Your task to perform on an android device: Open Yahoo.com Image 0: 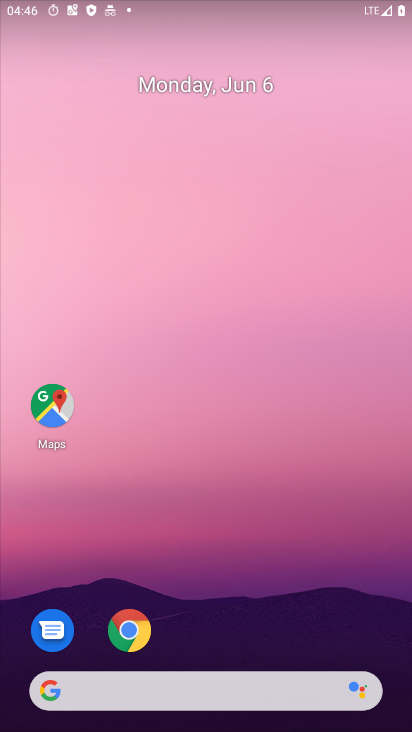
Step 0: drag from (245, 621) to (245, 80)
Your task to perform on an android device: Open Yahoo.com Image 1: 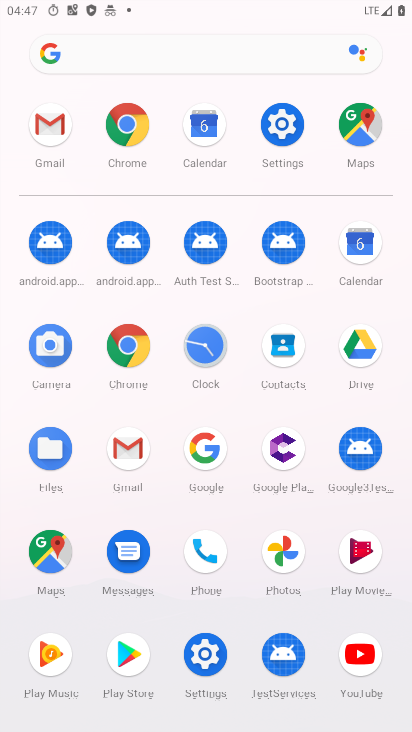
Step 1: click (124, 336)
Your task to perform on an android device: Open Yahoo.com Image 2: 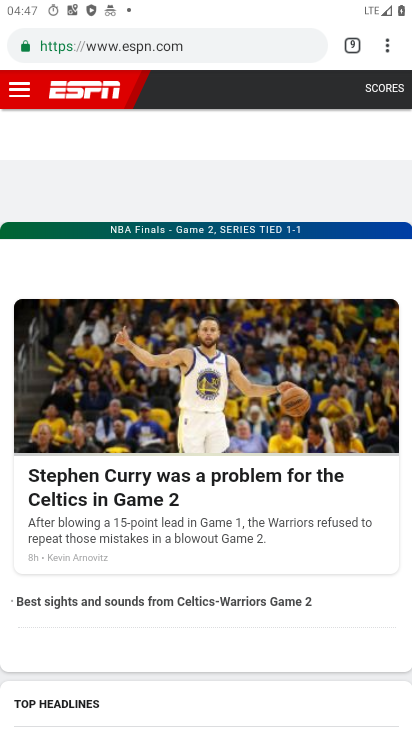
Step 2: click (174, 42)
Your task to perform on an android device: Open Yahoo.com Image 3: 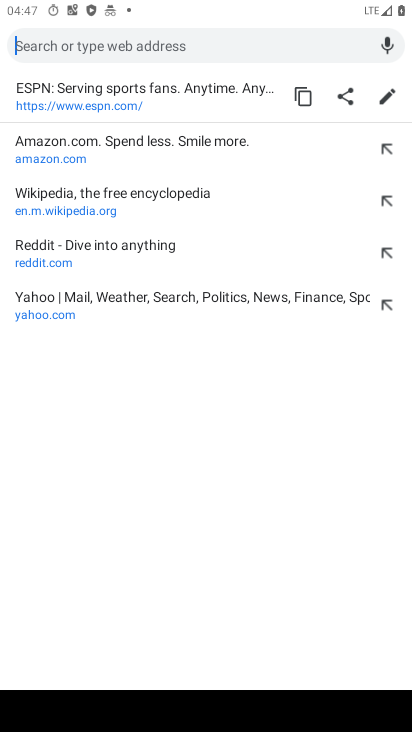
Step 3: type "Yahoo.com"
Your task to perform on an android device: Open Yahoo.com Image 4: 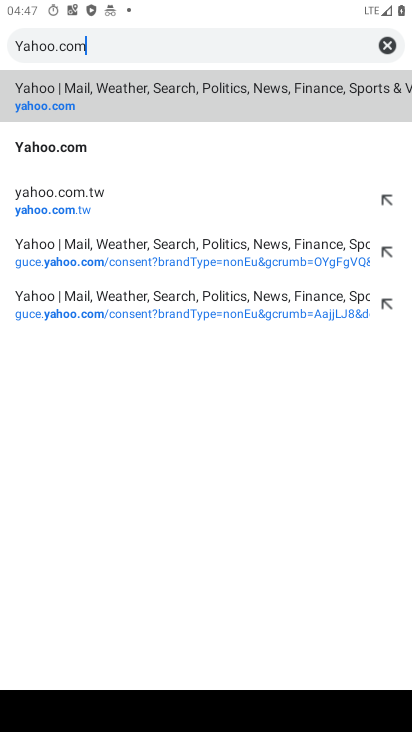
Step 4: click (59, 103)
Your task to perform on an android device: Open Yahoo.com Image 5: 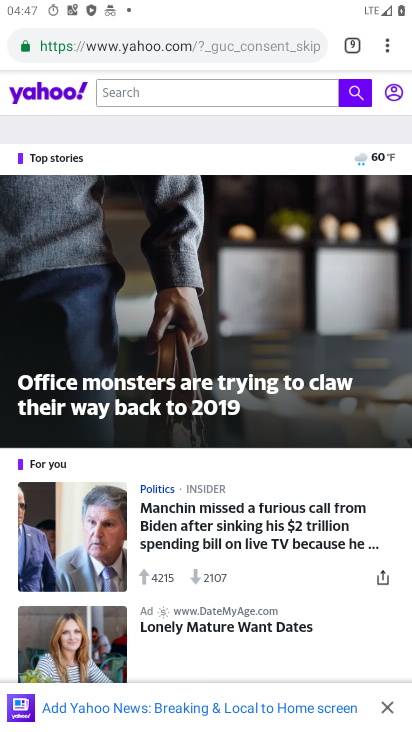
Step 5: task complete